Your task to perform on an android device: set the timer Image 0: 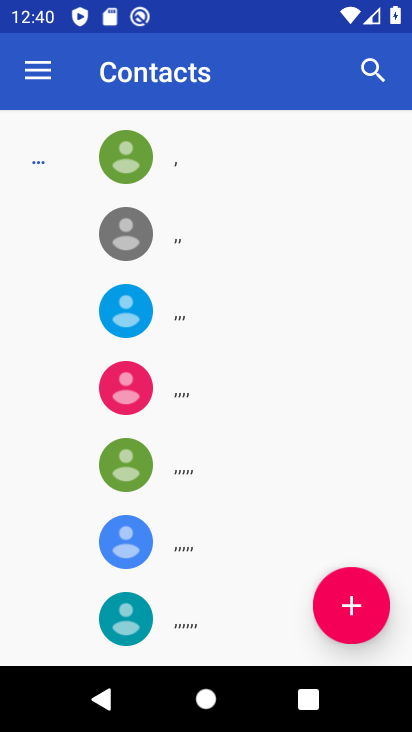
Step 0: press home button
Your task to perform on an android device: set the timer Image 1: 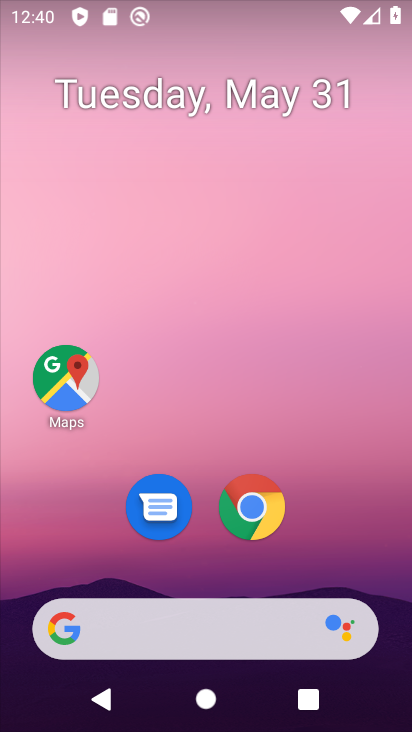
Step 1: drag from (337, 497) to (293, 204)
Your task to perform on an android device: set the timer Image 2: 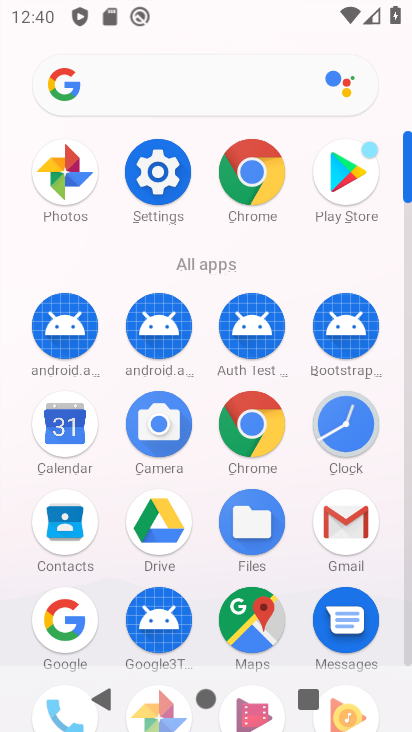
Step 2: click (358, 444)
Your task to perform on an android device: set the timer Image 3: 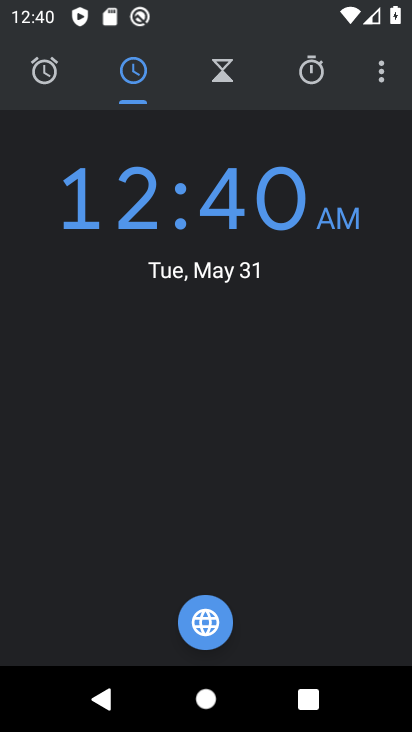
Step 3: click (246, 67)
Your task to perform on an android device: set the timer Image 4: 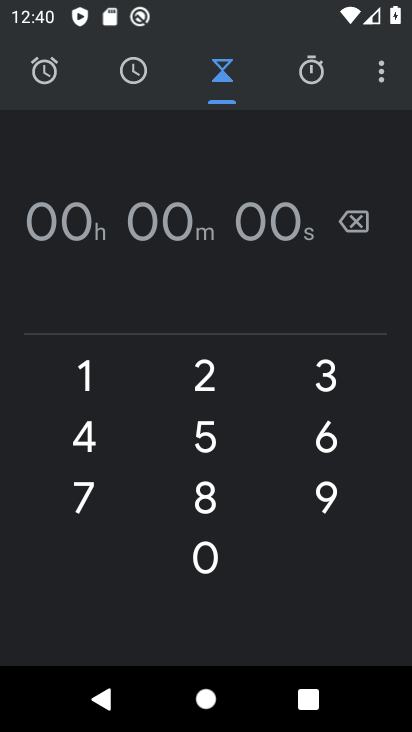
Step 4: click (207, 422)
Your task to perform on an android device: set the timer Image 5: 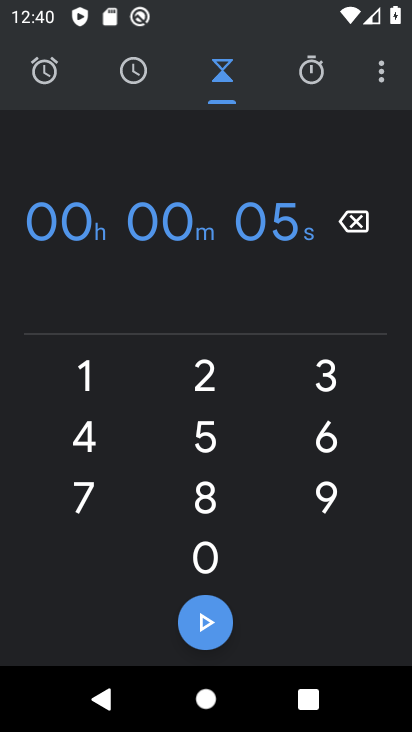
Step 5: click (202, 634)
Your task to perform on an android device: set the timer Image 6: 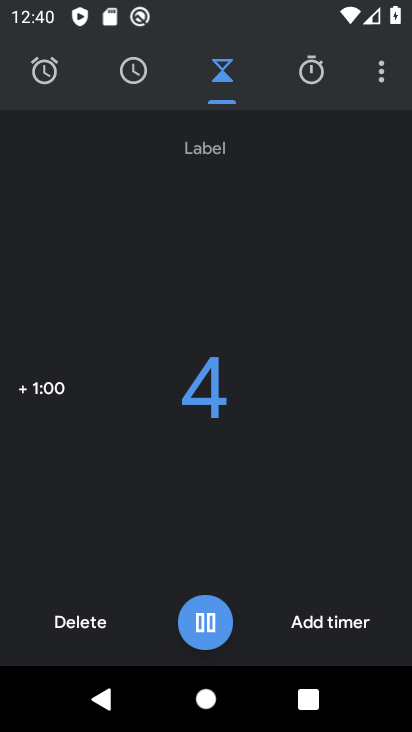
Step 6: task complete